Your task to perform on an android device: toggle sleep mode Image 0: 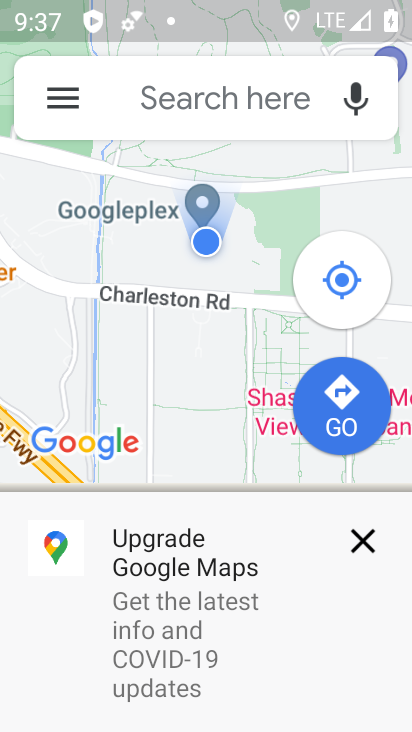
Step 0: press home button
Your task to perform on an android device: toggle sleep mode Image 1: 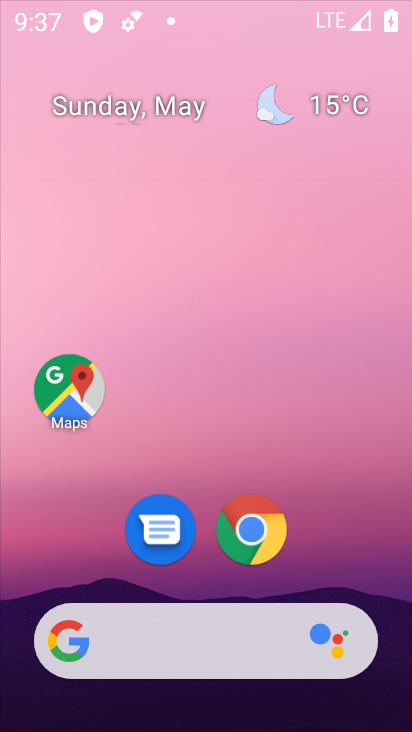
Step 1: press home button
Your task to perform on an android device: toggle sleep mode Image 2: 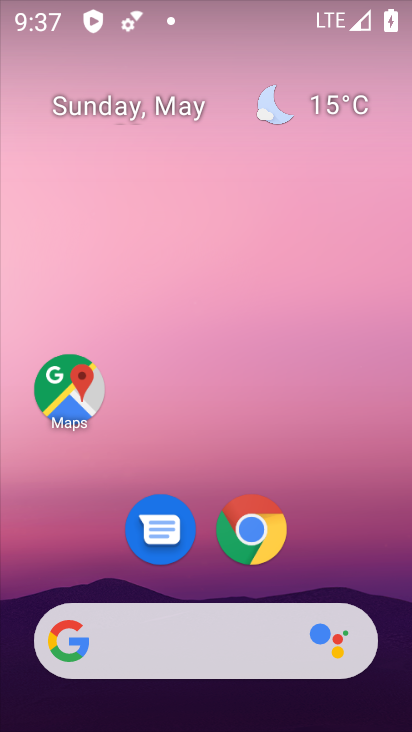
Step 2: drag from (297, 613) to (359, 64)
Your task to perform on an android device: toggle sleep mode Image 3: 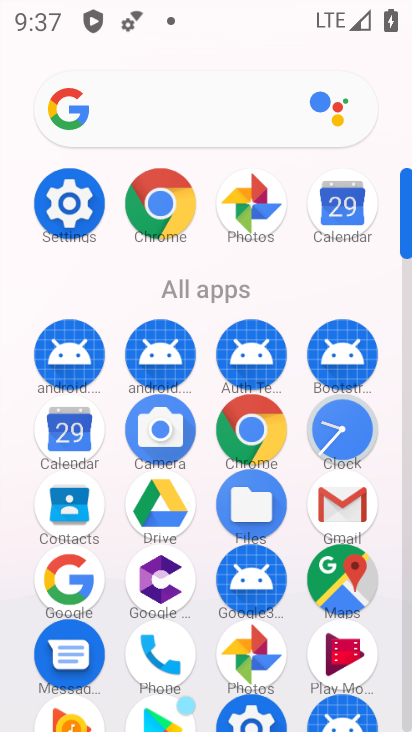
Step 3: click (74, 201)
Your task to perform on an android device: toggle sleep mode Image 4: 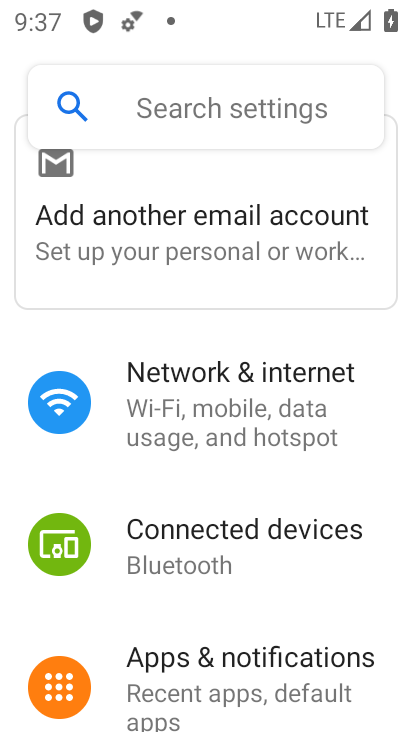
Step 4: drag from (244, 636) to (338, 96)
Your task to perform on an android device: toggle sleep mode Image 5: 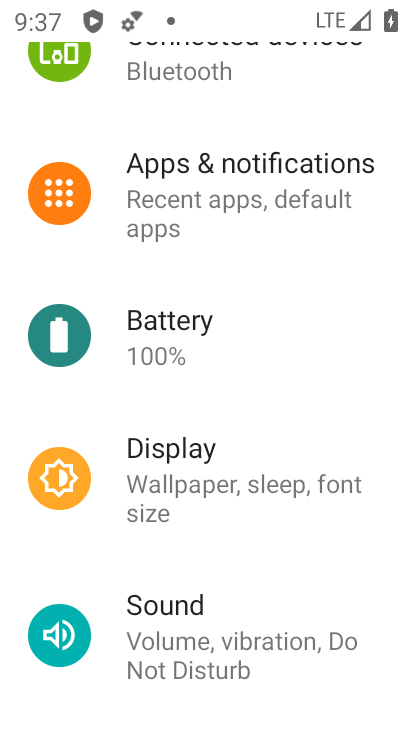
Step 5: click (277, 473)
Your task to perform on an android device: toggle sleep mode Image 6: 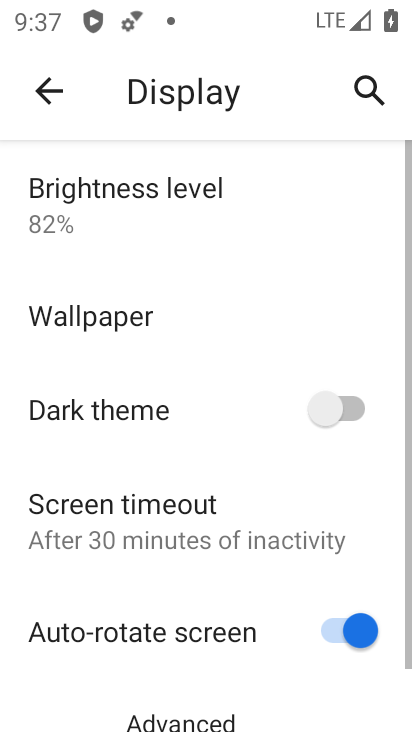
Step 6: task complete